Your task to perform on an android device: refresh tabs in the chrome app Image 0: 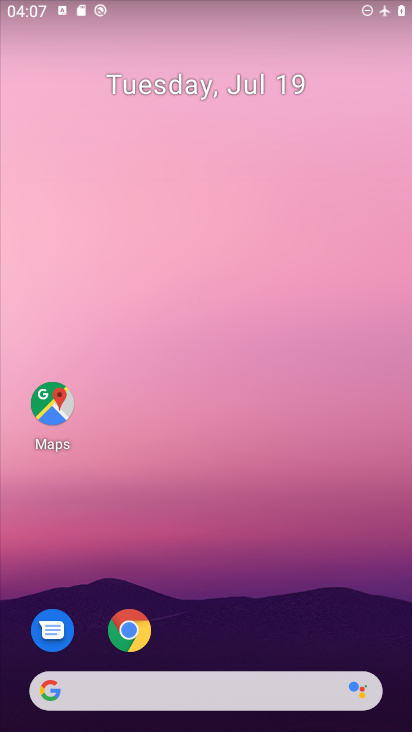
Step 0: click (126, 627)
Your task to perform on an android device: refresh tabs in the chrome app Image 1: 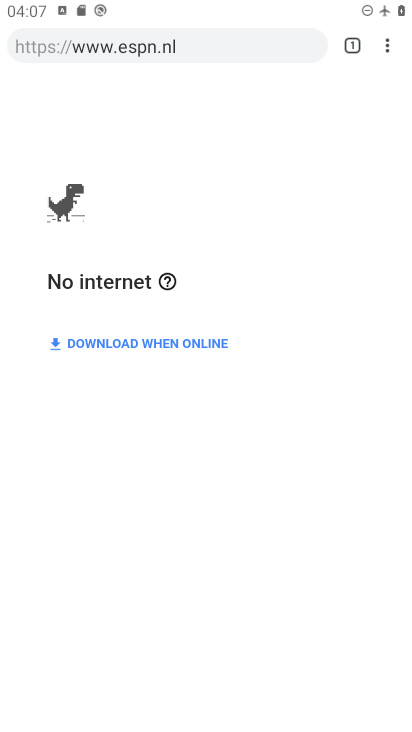
Step 1: click (384, 46)
Your task to perform on an android device: refresh tabs in the chrome app Image 2: 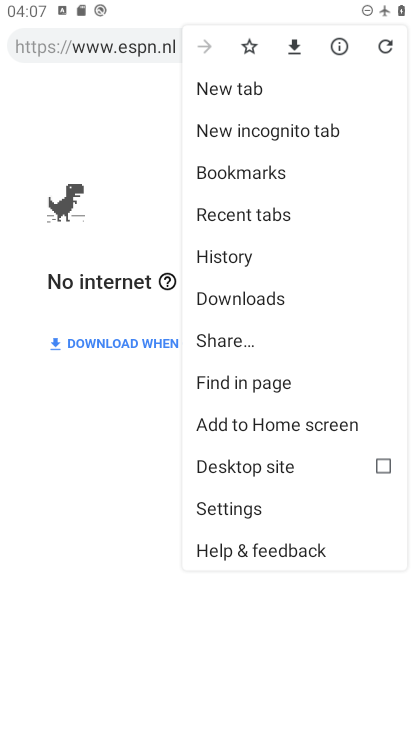
Step 2: click (384, 45)
Your task to perform on an android device: refresh tabs in the chrome app Image 3: 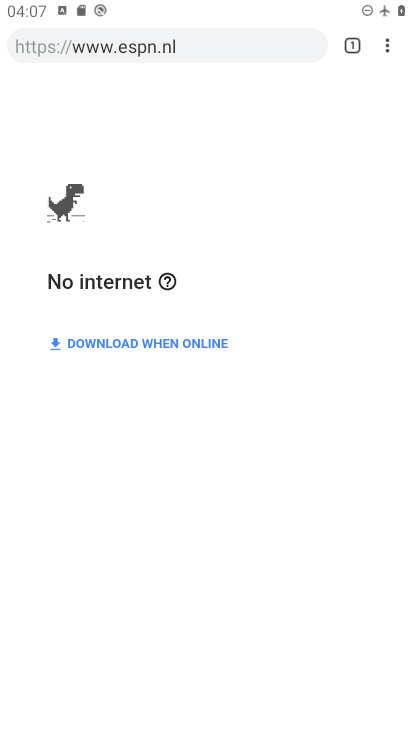
Step 3: task complete